Your task to perform on an android device: Open Youtube and go to the subscriptions tab Image 0: 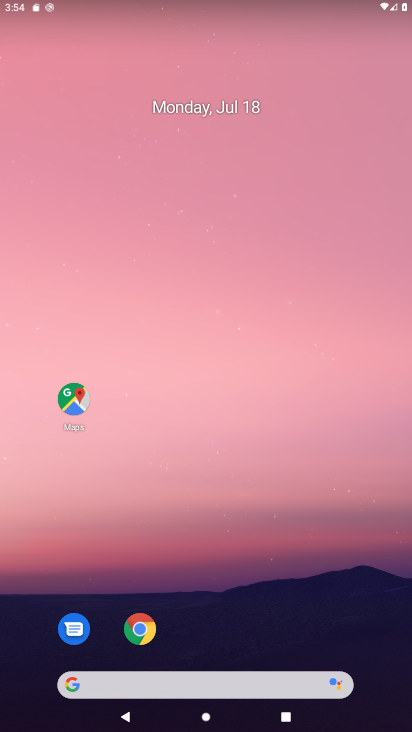
Step 0: drag from (227, 619) to (227, 173)
Your task to perform on an android device: Open Youtube and go to the subscriptions tab Image 1: 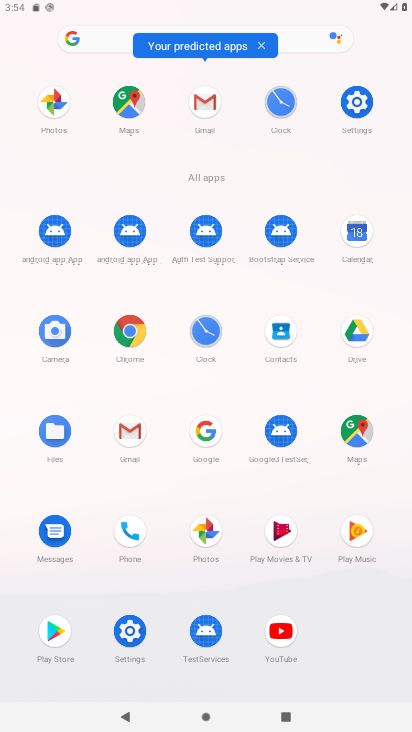
Step 1: click (266, 632)
Your task to perform on an android device: Open Youtube and go to the subscriptions tab Image 2: 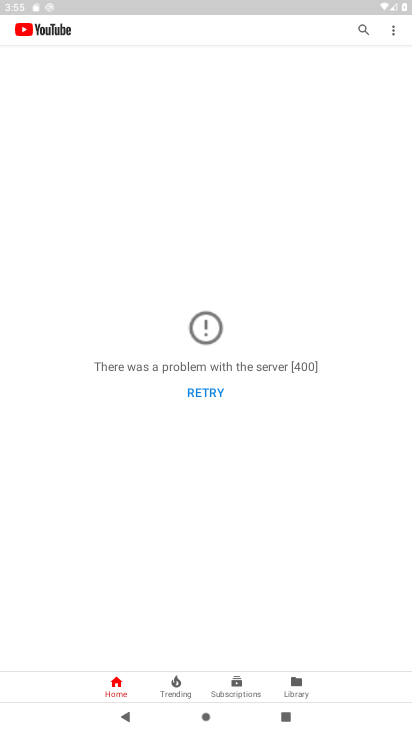
Step 2: click (243, 688)
Your task to perform on an android device: Open Youtube and go to the subscriptions tab Image 3: 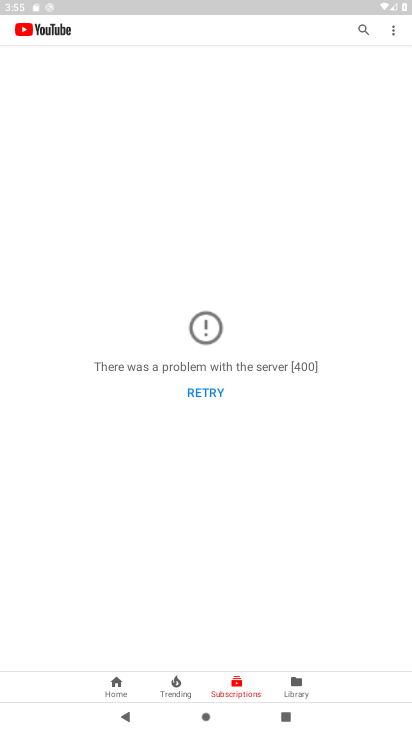
Step 3: task complete